Your task to perform on an android device: Open location settings Image 0: 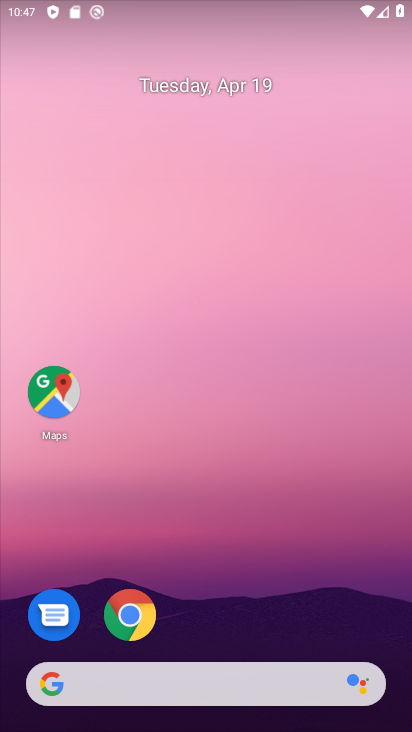
Step 0: drag from (219, 567) to (215, 101)
Your task to perform on an android device: Open location settings Image 1: 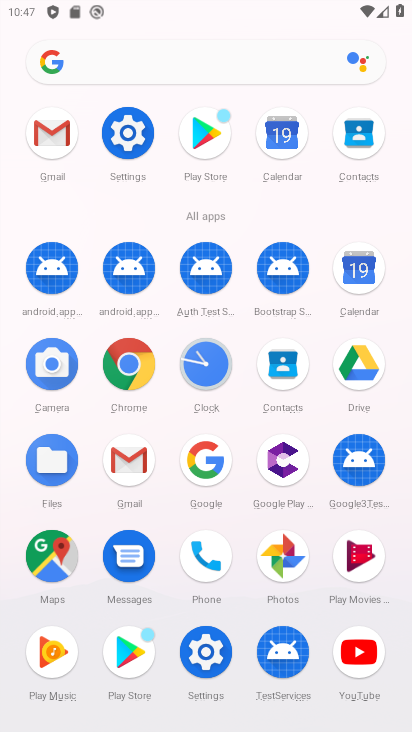
Step 1: click (124, 134)
Your task to perform on an android device: Open location settings Image 2: 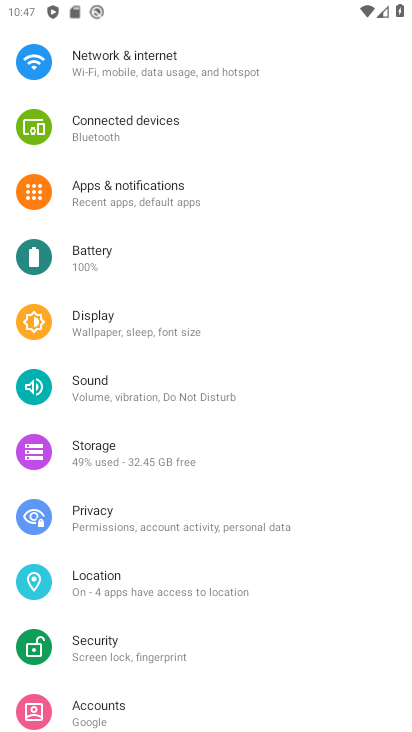
Step 2: click (143, 581)
Your task to perform on an android device: Open location settings Image 3: 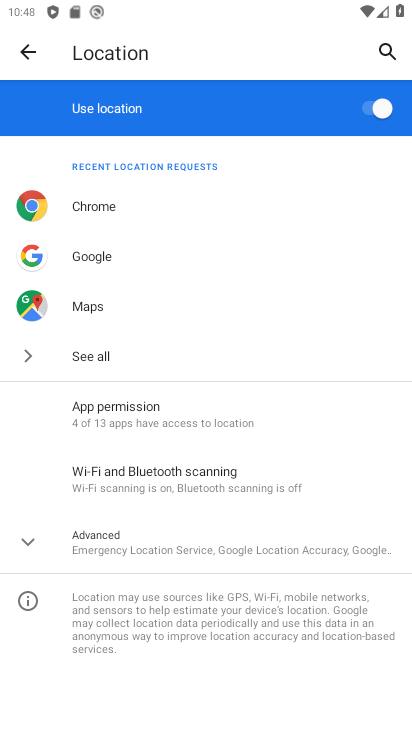
Step 3: task complete